Your task to perform on an android device: open app "Adobe Express: Graphic Design" (install if not already installed) and go to login screen Image 0: 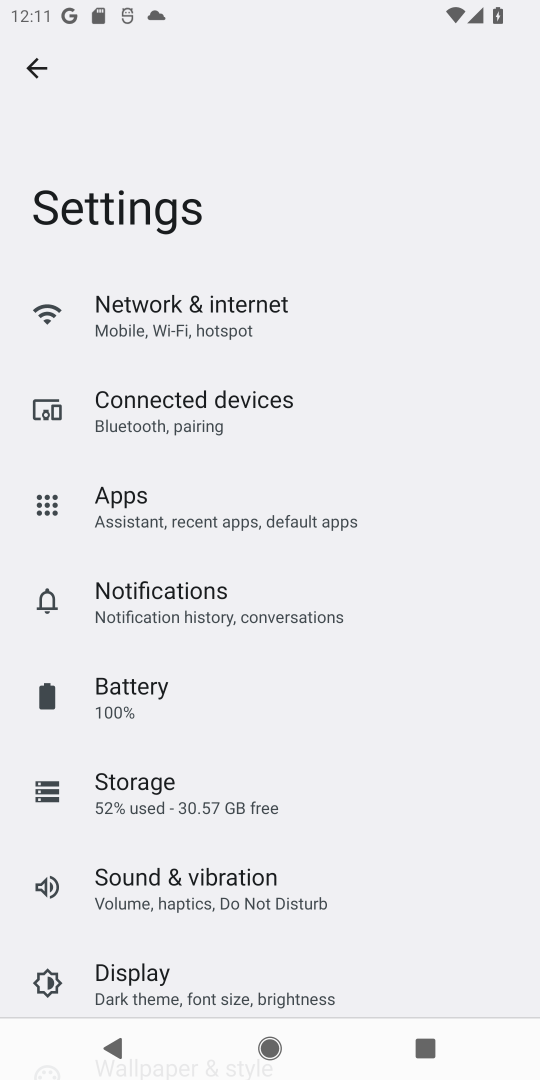
Step 0: press home button
Your task to perform on an android device: open app "Adobe Express: Graphic Design" (install if not already installed) and go to login screen Image 1: 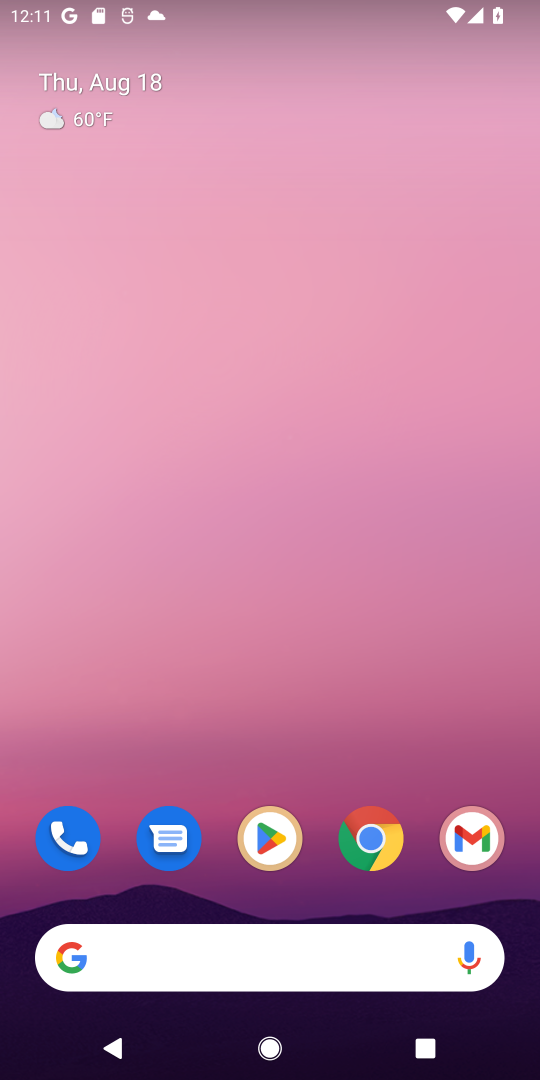
Step 1: click (257, 845)
Your task to perform on an android device: open app "Adobe Express: Graphic Design" (install if not already installed) and go to login screen Image 2: 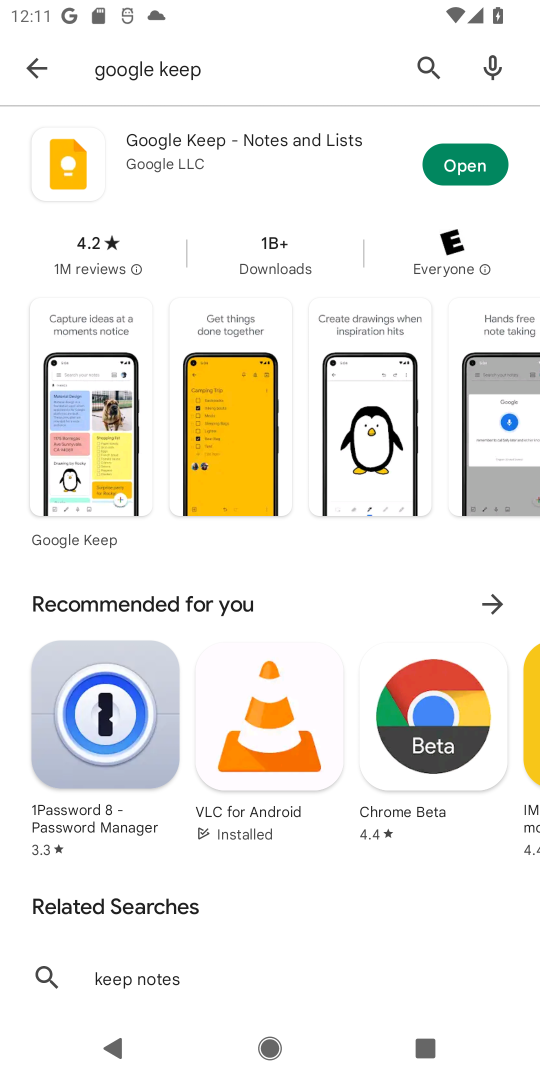
Step 2: click (420, 79)
Your task to perform on an android device: open app "Adobe Express: Graphic Design" (install if not already installed) and go to login screen Image 3: 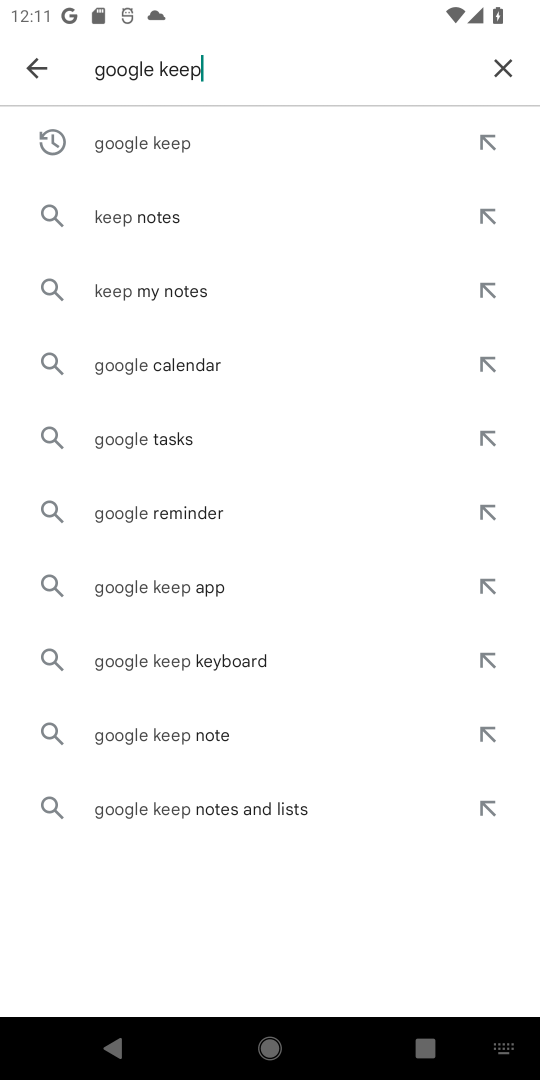
Step 3: click (502, 71)
Your task to perform on an android device: open app "Adobe Express: Graphic Design" (install if not already installed) and go to login screen Image 4: 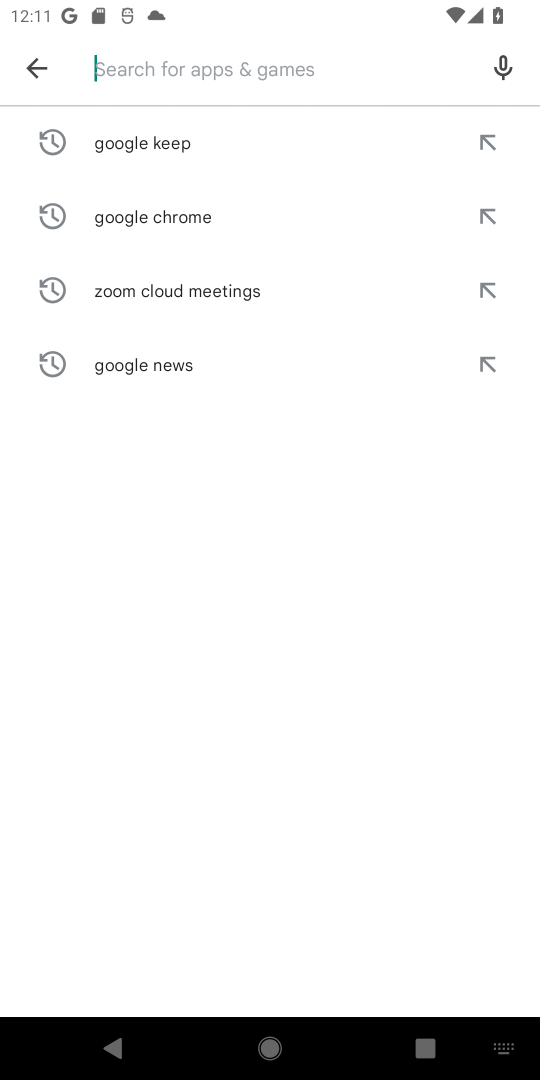
Step 4: type "Adobe Express: Graphic Design"
Your task to perform on an android device: open app "Adobe Express: Graphic Design" (install if not already installed) and go to login screen Image 5: 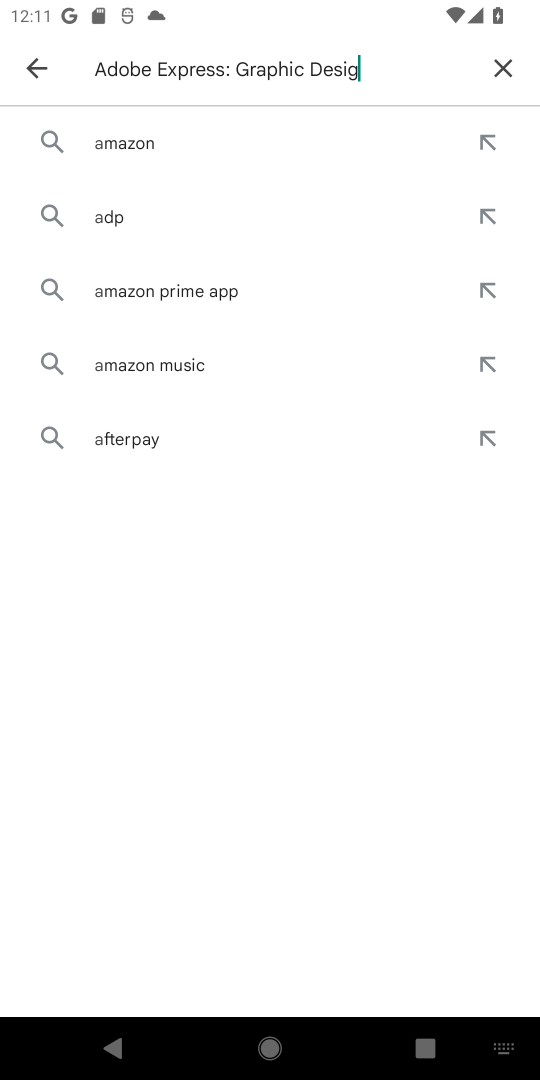
Step 5: type ""
Your task to perform on an android device: open app "Adobe Express: Graphic Design" (install if not already installed) and go to login screen Image 6: 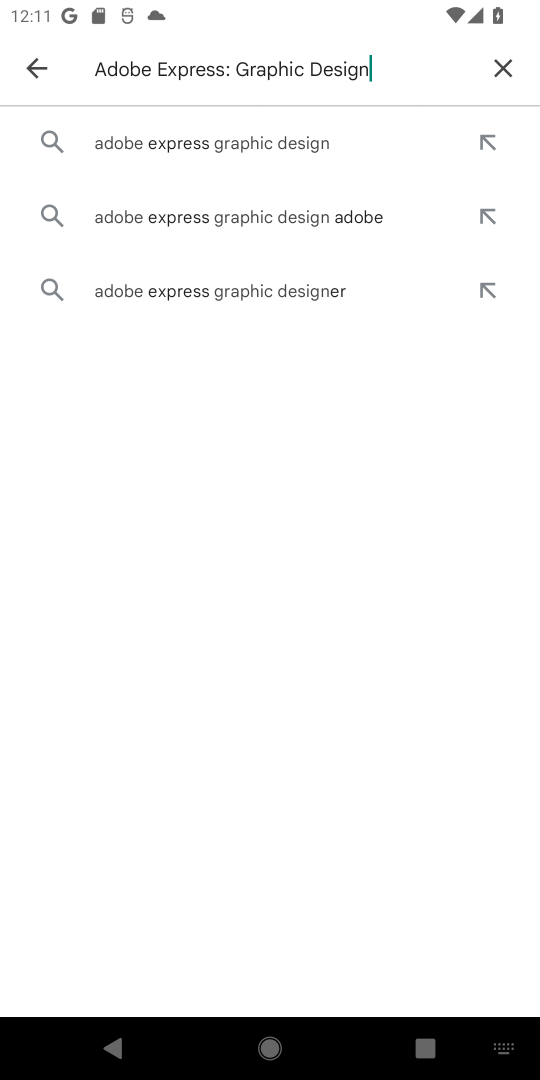
Step 6: click (223, 156)
Your task to perform on an android device: open app "Adobe Express: Graphic Design" (install if not already installed) and go to login screen Image 7: 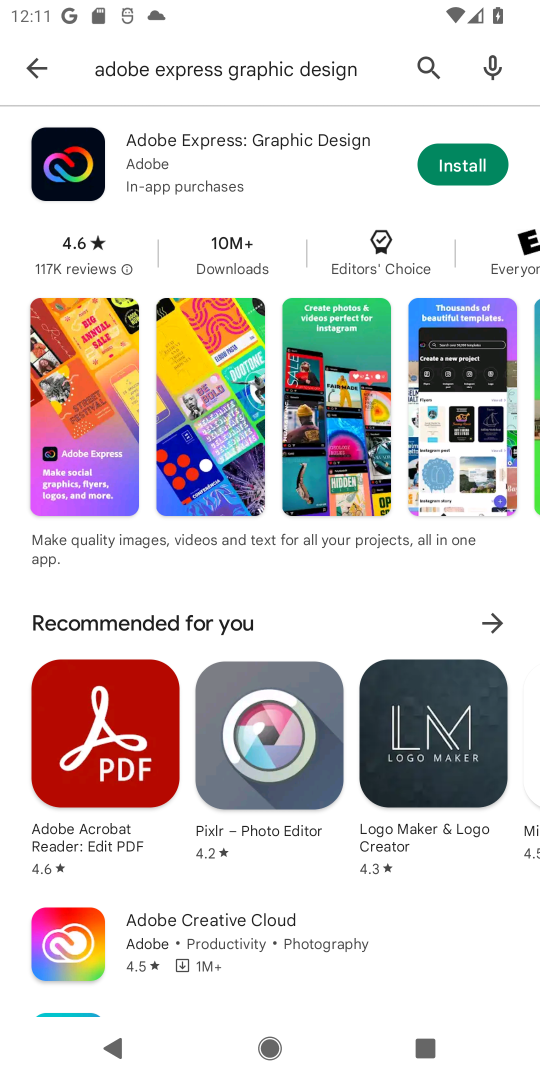
Step 7: click (441, 158)
Your task to perform on an android device: open app "Adobe Express: Graphic Design" (install if not already installed) and go to login screen Image 8: 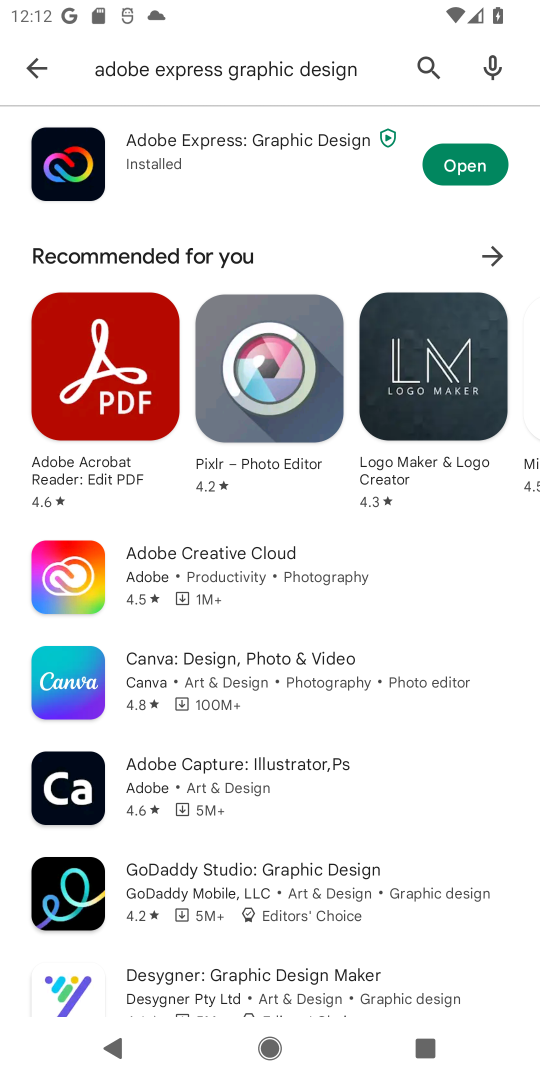
Step 8: click (474, 158)
Your task to perform on an android device: open app "Adobe Express: Graphic Design" (install if not already installed) and go to login screen Image 9: 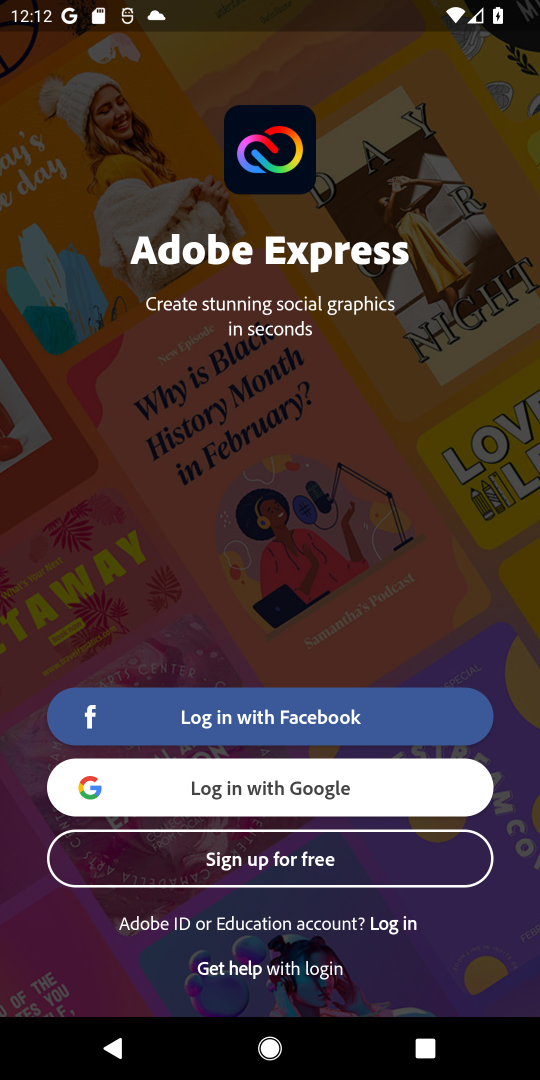
Step 9: task complete